Your task to perform on an android device: toggle show notifications on the lock screen Image 0: 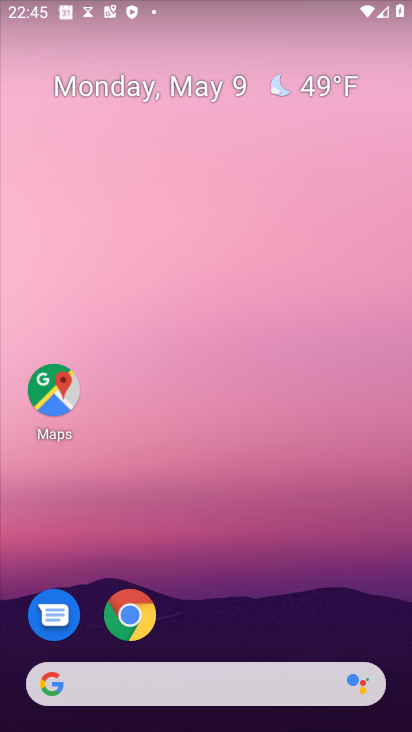
Step 0: drag from (250, 602) to (250, 155)
Your task to perform on an android device: toggle show notifications on the lock screen Image 1: 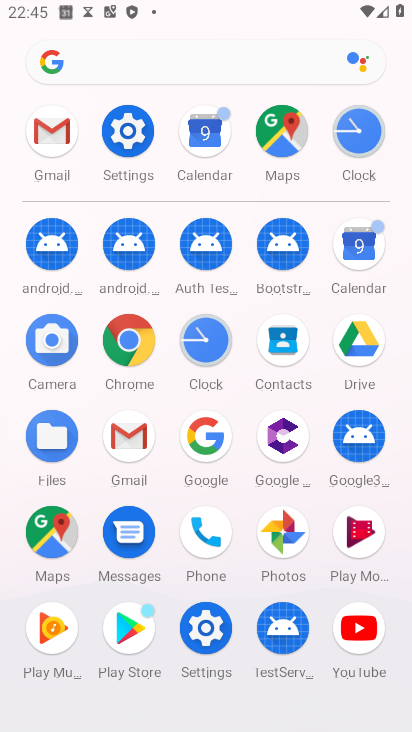
Step 1: click (126, 143)
Your task to perform on an android device: toggle show notifications on the lock screen Image 2: 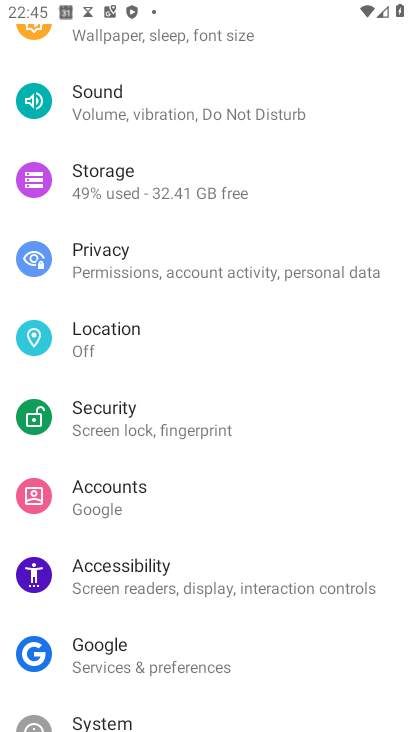
Step 2: drag from (170, 233) to (120, 535)
Your task to perform on an android device: toggle show notifications on the lock screen Image 3: 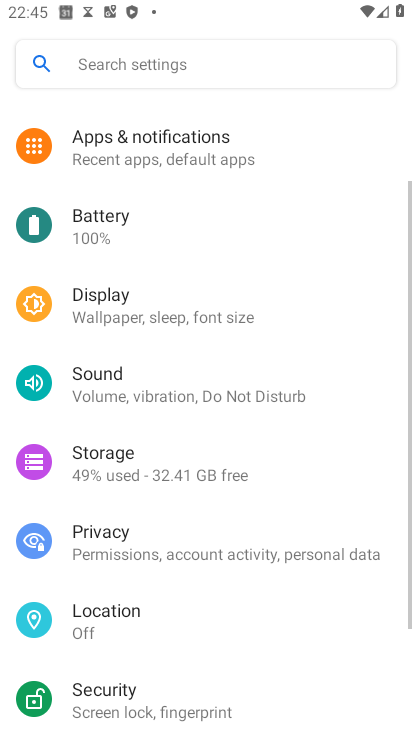
Step 3: drag from (138, 294) to (94, 503)
Your task to perform on an android device: toggle show notifications on the lock screen Image 4: 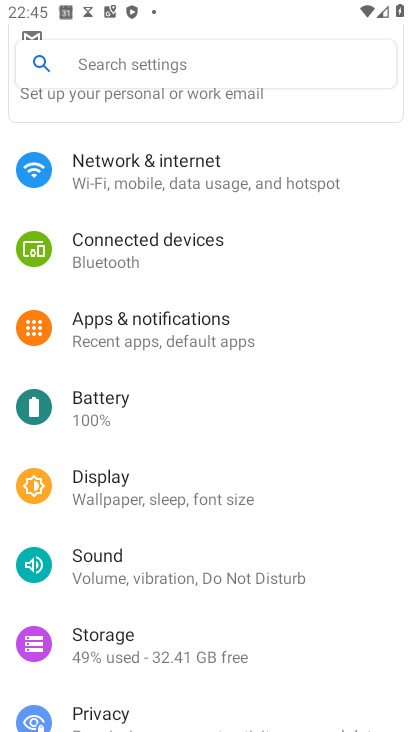
Step 4: click (148, 340)
Your task to perform on an android device: toggle show notifications on the lock screen Image 5: 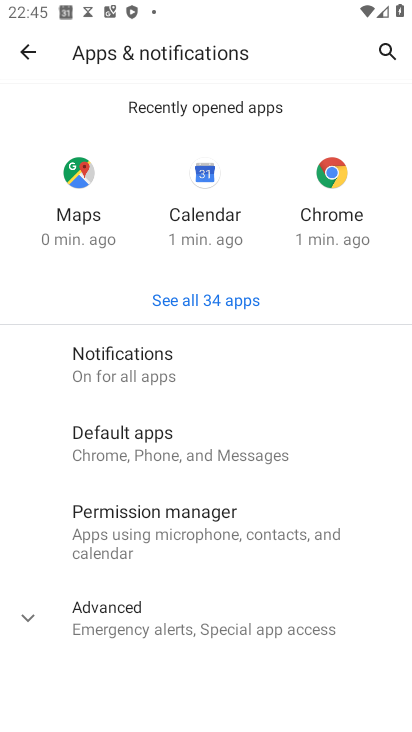
Step 5: click (192, 374)
Your task to perform on an android device: toggle show notifications on the lock screen Image 6: 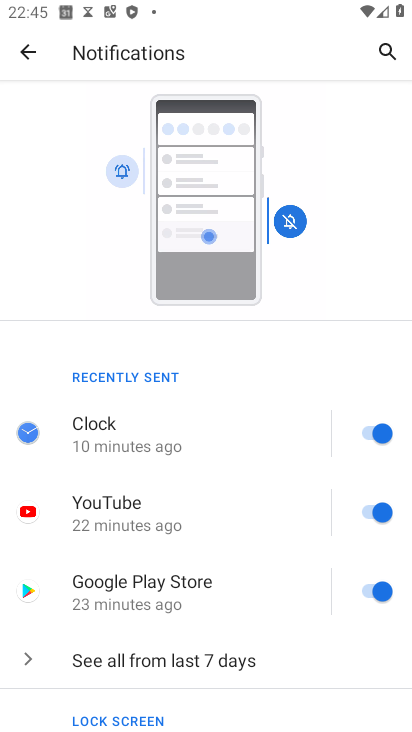
Step 6: drag from (182, 652) to (198, 270)
Your task to perform on an android device: toggle show notifications on the lock screen Image 7: 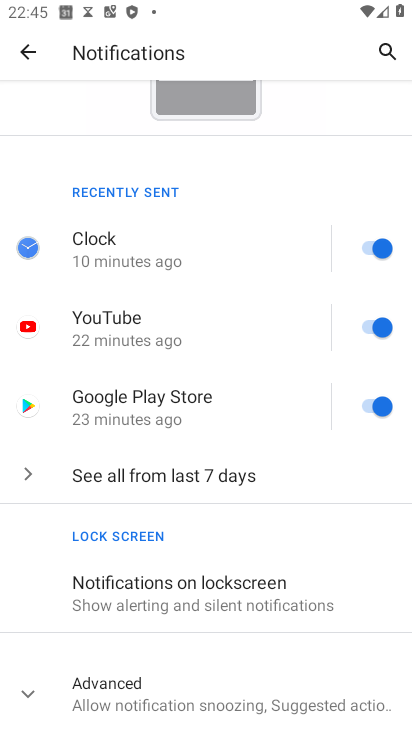
Step 7: click (160, 607)
Your task to perform on an android device: toggle show notifications on the lock screen Image 8: 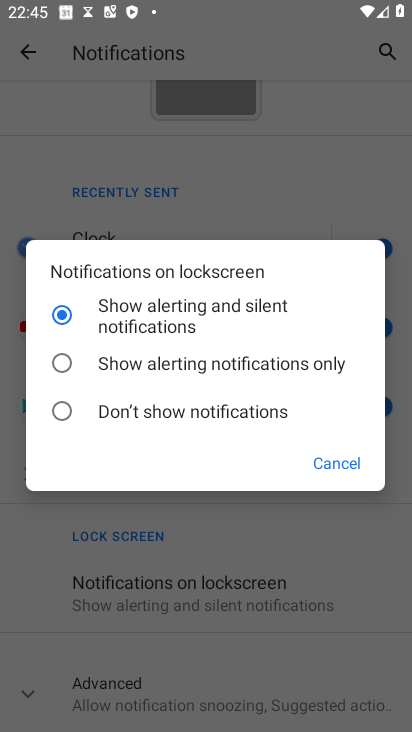
Step 8: click (205, 379)
Your task to perform on an android device: toggle show notifications on the lock screen Image 9: 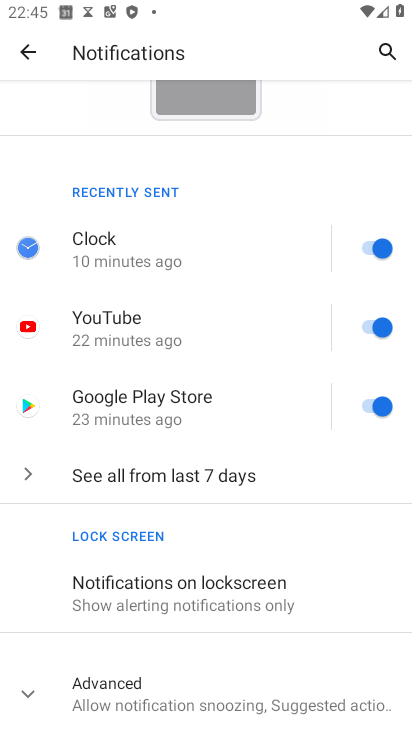
Step 9: task complete